Your task to perform on an android device: Open network settings Image 0: 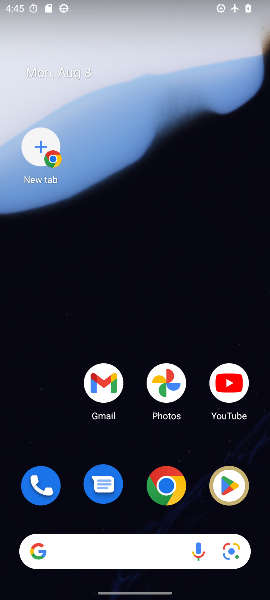
Step 0: click (173, 253)
Your task to perform on an android device: Open network settings Image 1: 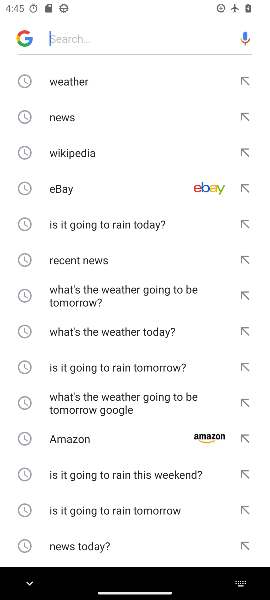
Step 1: press back button
Your task to perform on an android device: Open network settings Image 2: 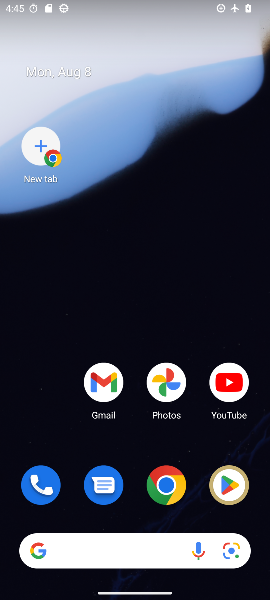
Step 2: drag from (140, 492) to (78, 110)
Your task to perform on an android device: Open network settings Image 3: 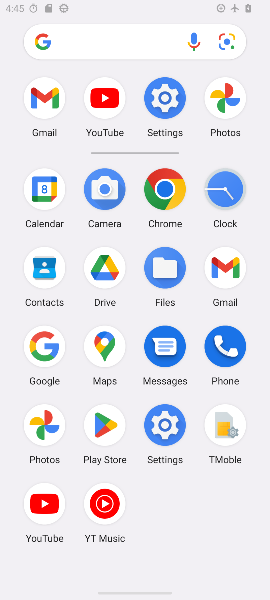
Step 3: drag from (117, 374) to (95, 16)
Your task to perform on an android device: Open network settings Image 4: 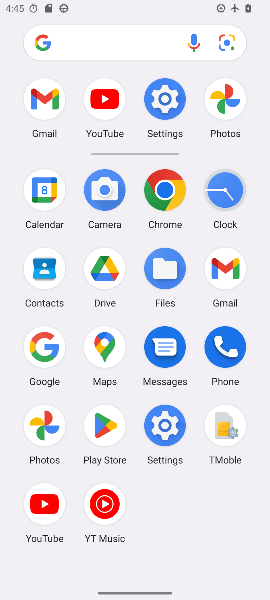
Step 4: click (159, 90)
Your task to perform on an android device: Open network settings Image 5: 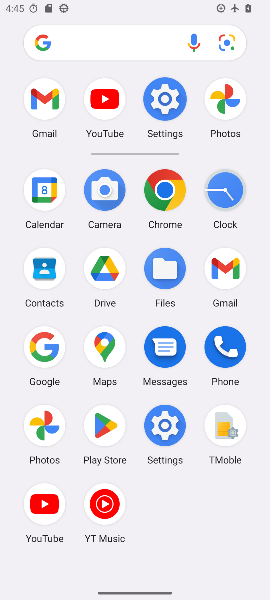
Step 5: click (159, 91)
Your task to perform on an android device: Open network settings Image 6: 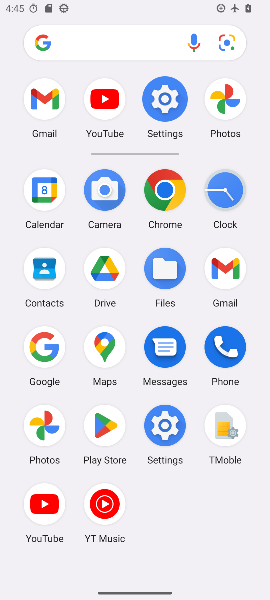
Step 6: click (162, 95)
Your task to perform on an android device: Open network settings Image 7: 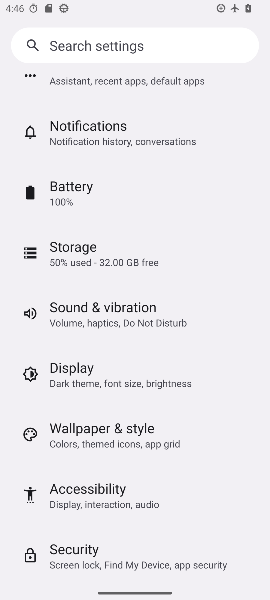
Step 7: drag from (94, 136) to (104, 391)
Your task to perform on an android device: Open network settings Image 8: 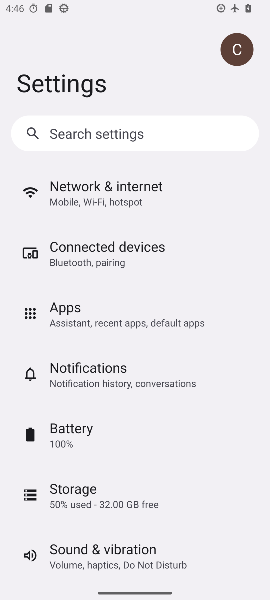
Step 8: drag from (84, 154) to (99, 417)
Your task to perform on an android device: Open network settings Image 9: 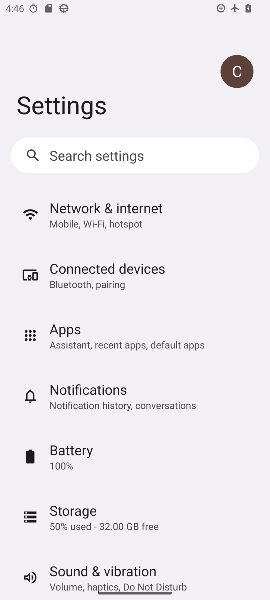
Step 9: drag from (91, 269) to (91, 426)
Your task to perform on an android device: Open network settings Image 10: 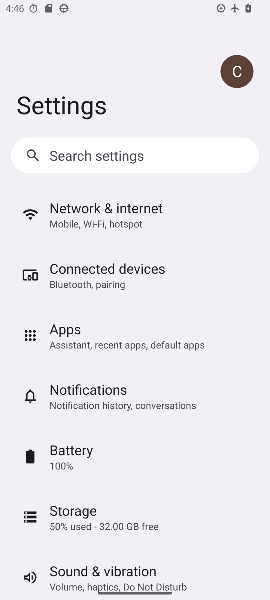
Step 10: click (73, 206)
Your task to perform on an android device: Open network settings Image 11: 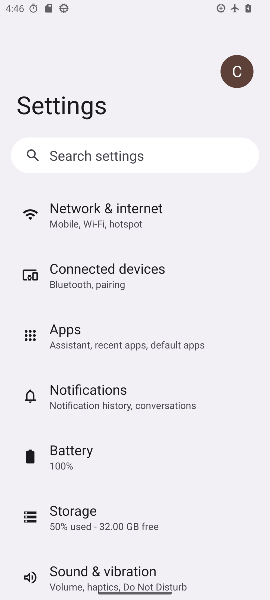
Step 11: click (73, 206)
Your task to perform on an android device: Open network settings Image 12: 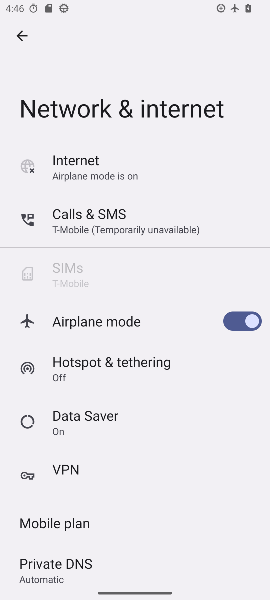
Step 12: click (79, 212)
Your task to perform on an android device: Open network settings Image 13: 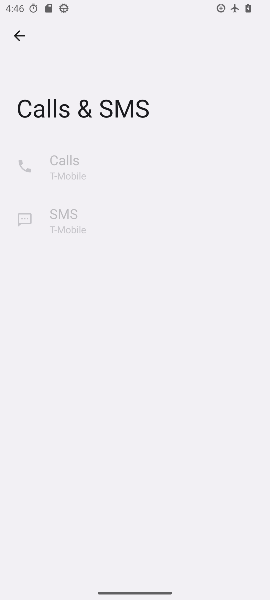
Step 13: task complete